Your task to perform on an android device: turn on bluetooth scan Image 0: 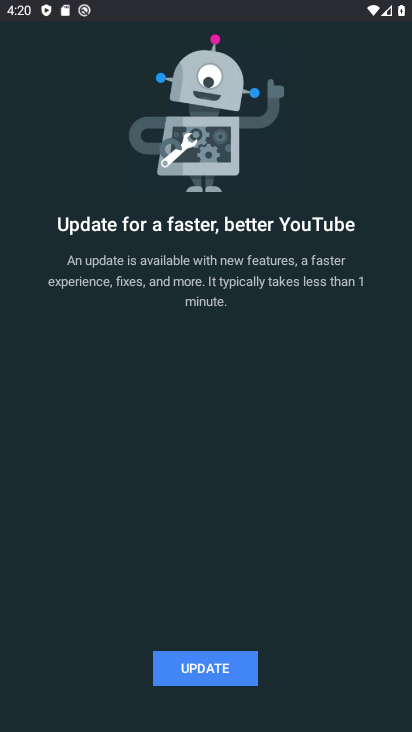
Step 0: press home button
Your task to perform on an android device: turn on bluetooth scan Image 1: 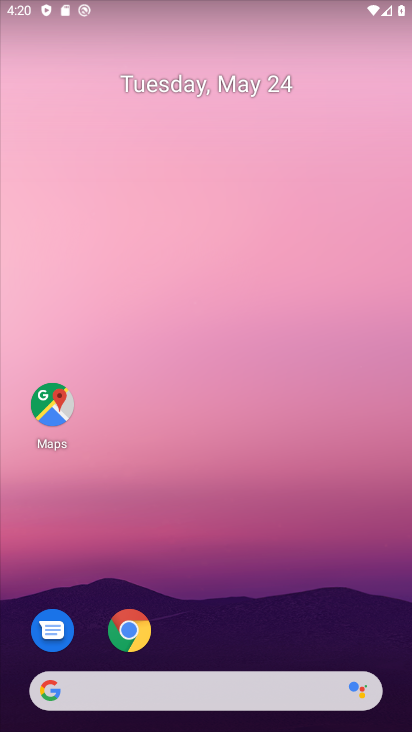
Step 1: drag from (266, 635) to (277, 65)
Your task to perform on an android device: turn on bluetooth scan Image 2: 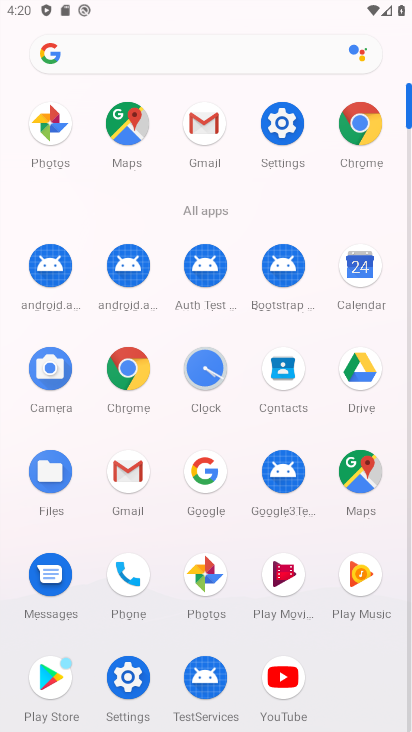
Step 2: click (296, 136)
Your task to perform on an android device: turn on bluetooth scan Image 3: 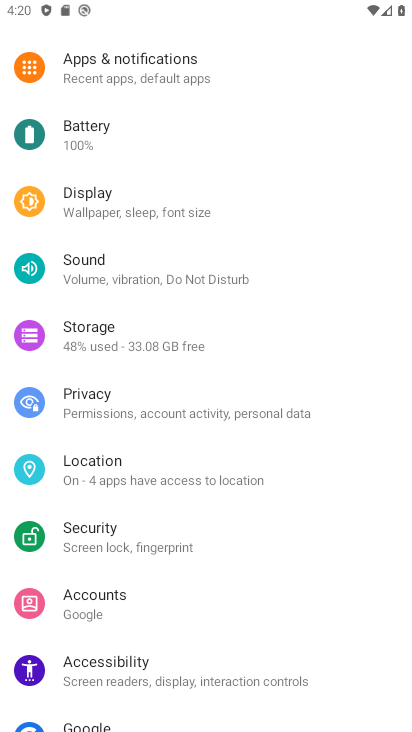
Step 3: click (173, 493)
Your task to perform on an android device: turn on bluetooth scan Image 4: 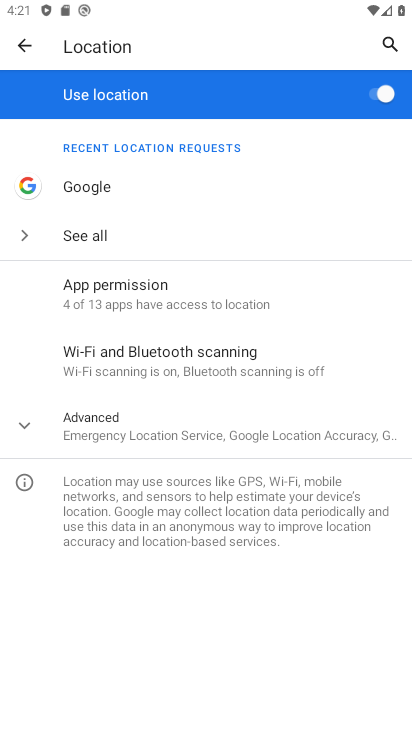
Step 4: drag from (157, 624) to (182, 211)
Your task to perform on an android device: turn on bluetooth scan Image 5: 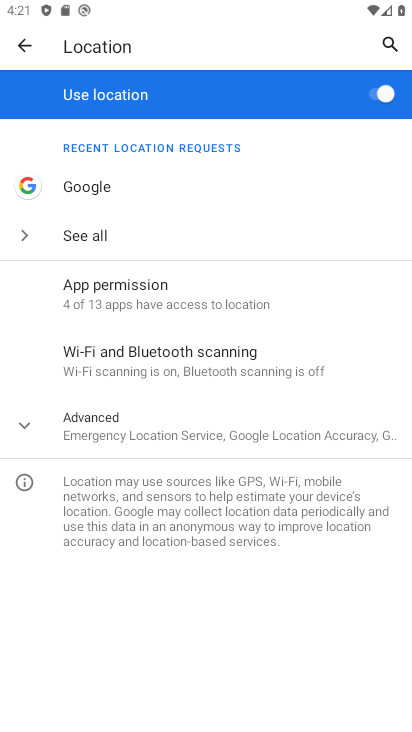
Step 5: drag from (207, 392) to (201, 234)
Your task to perform on an android device: turn on bluetooth scan Image 6: 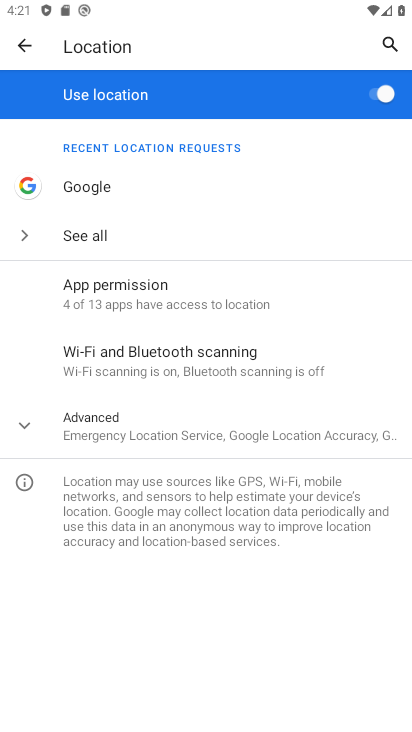
Step 6: click (152, 364)
Your task to perform on an android device: turn on bluetooth scan Image 7: 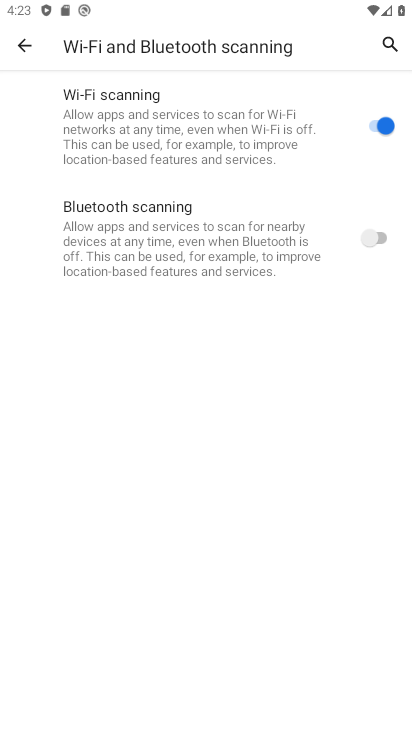
Step 7: click (378, 241)
Your task to perform on an android device: turn on bluetooth scan Image 8: 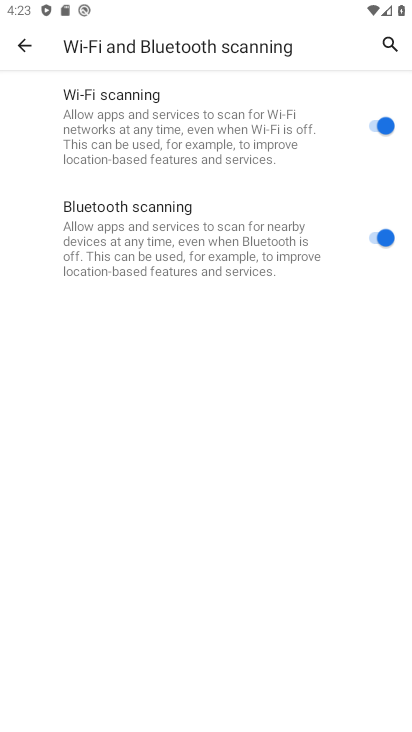
Step 8: task complete